Your task to perform on an android device: Go to wifi settings Image 0: 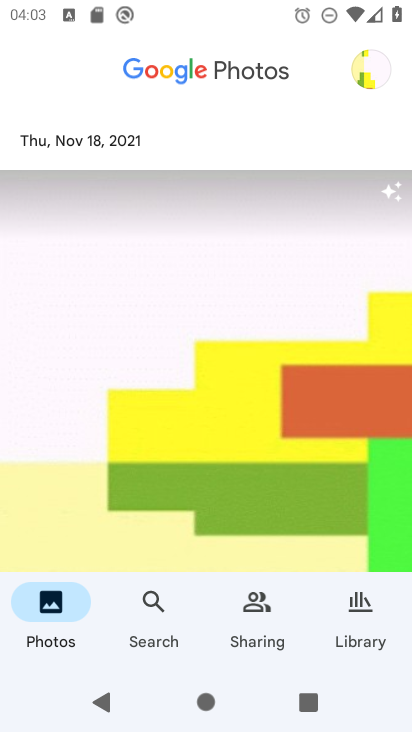
Step 0: press home button
Your task to perform on an android device: Go to wifi settings Image 1: 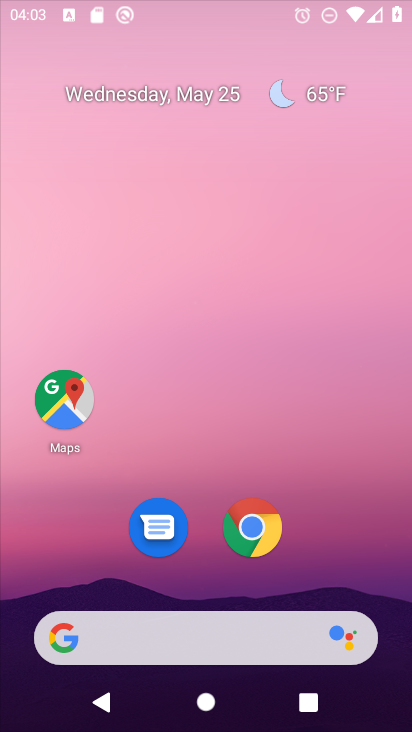
Step 1: drag from (319, 578) to (353, 5)
Your task to perform on an android device: Go to wifi settings Image 2: 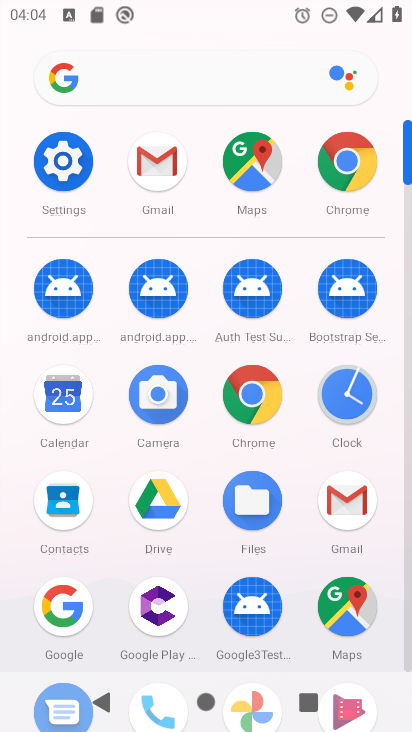
Step 2: click (70, 179)
Your task to perform on an android device: Go to wifi settings Image 3: 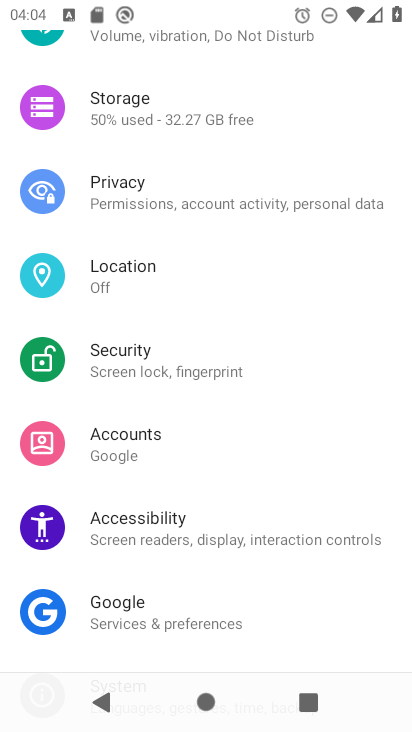
Step 3: drag from (274, 186) to (309, 682)
Your task to perform on an android device: Go to wifi settings Image 4: 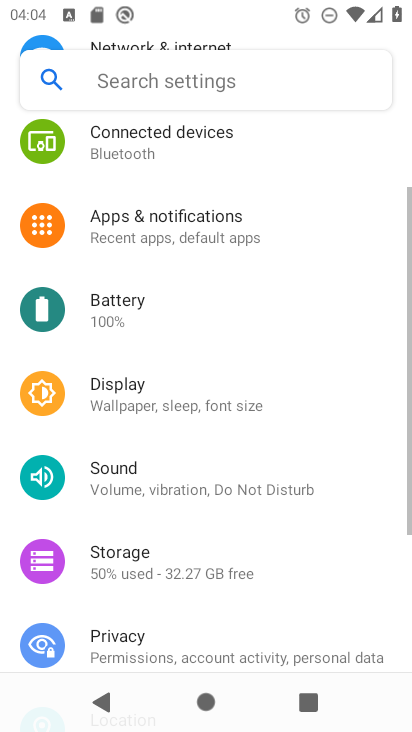
Step 4: drag from (252, 227) to (285, 677)
Your task to perform on an android device: Go to wifi settings Image 5: 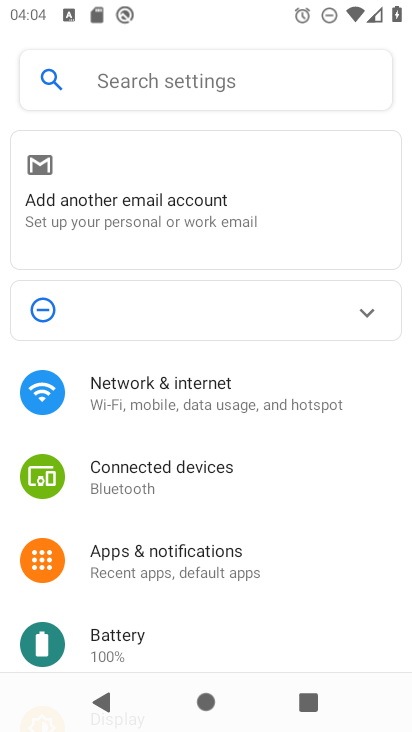
Step 5: click (262, 397)
Your task to perform on an android device: Go to wifi settings Image 6: 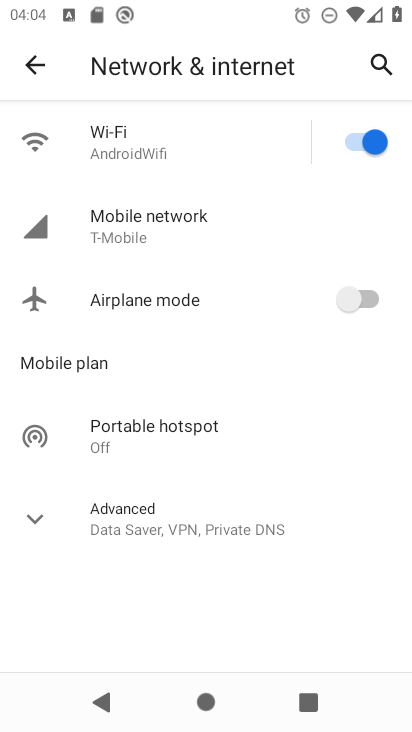
Step 6: click (164, 131)
Your task to perform on an android device: Go to wifi settings Image 7: 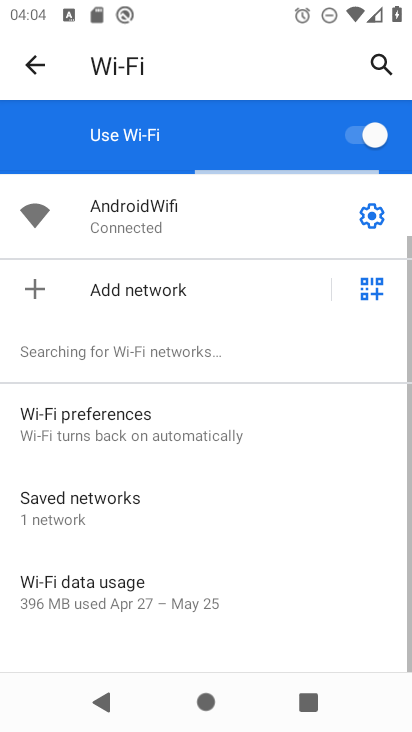
Step 7: task complete